Your task to perform on an android device: Open ESPN.com Image 0: 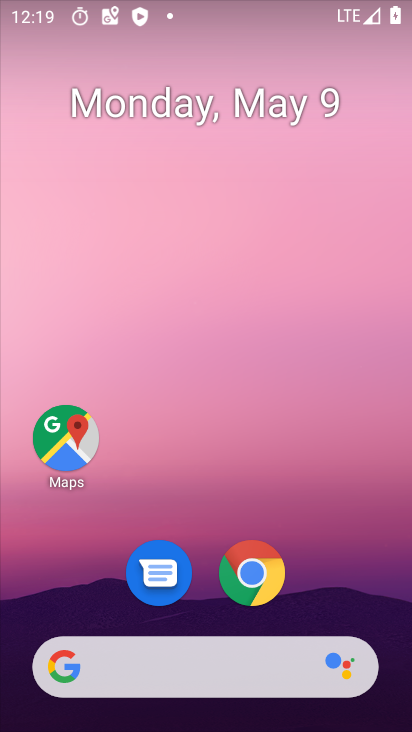
Step 0: drag from (327, 603) to (262, 15)
Your task to perform on an android device: Open ESPN.com Image 1: 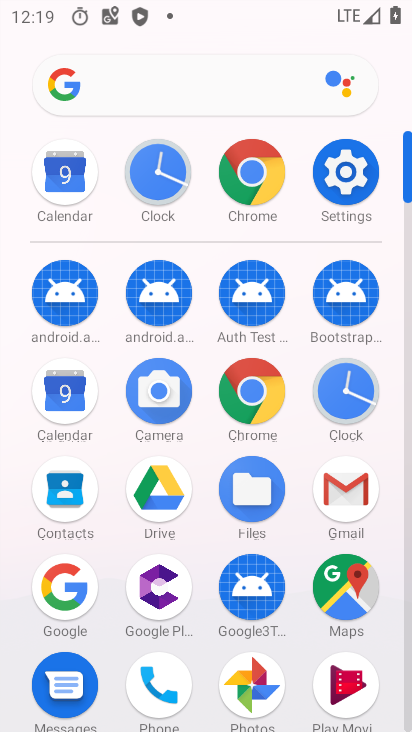
Step 1: drag from (10, 624) to (24, 242)
Your task to perform on an android device: Open ESPN.com Image 2: 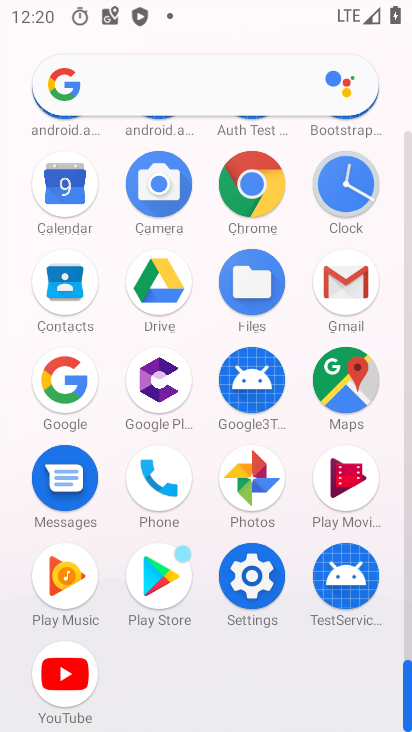
Step 2: click (247, 174)
Your task to perform on an android device: Open ESPN.com Image 3: 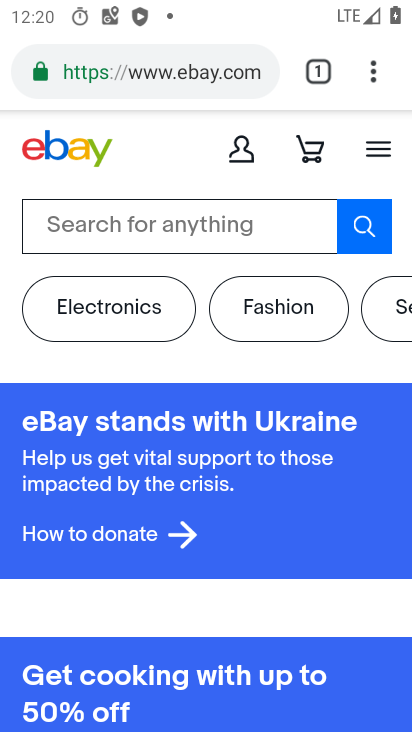
Step 3: click (186, 71)
Your task to perform on an android device: Open ESPN.com Image 4: 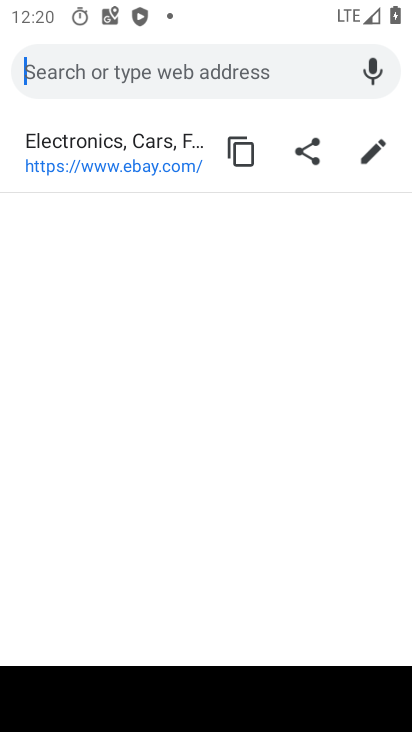
Step 4: click (147, 73)
Your task to perform on an android device: Open ESPN.com Image 5: 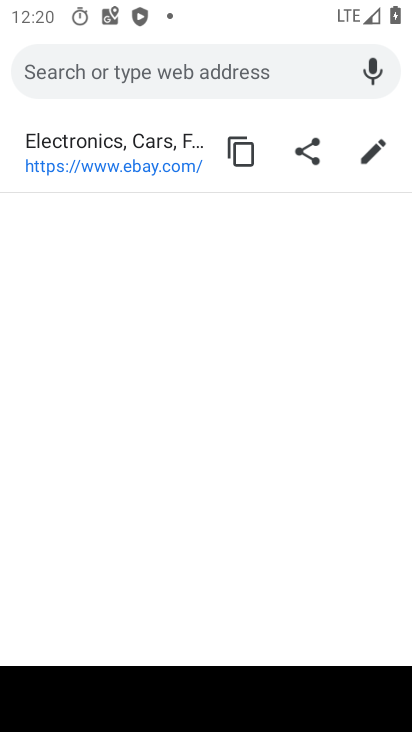
Step 5: type "ESPN.com"
Your task to perform on an android device: Open ESPN.com Image 6: 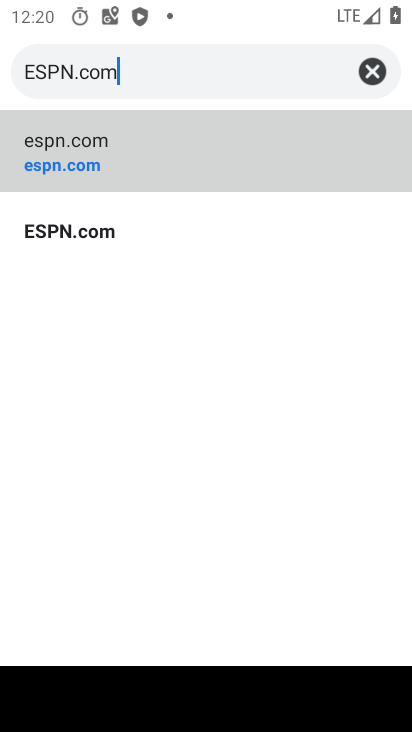
Step 6: type ""
Your task to perform on an android device: Open ESPN.com Image 7: 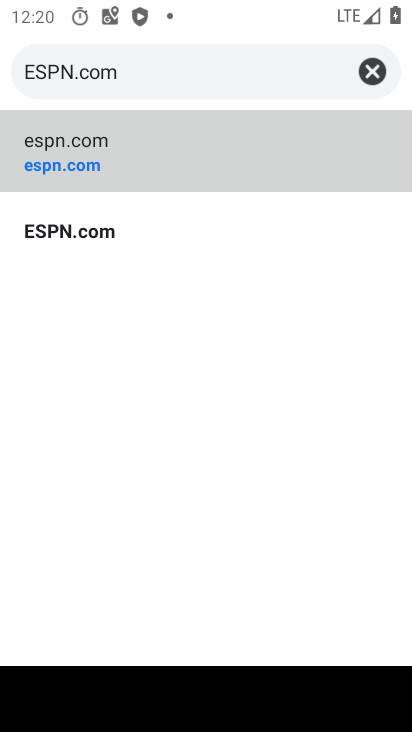
Step 7: click (125, 121)
Your task to perform on an android device: Open ESPN.com Image 8: 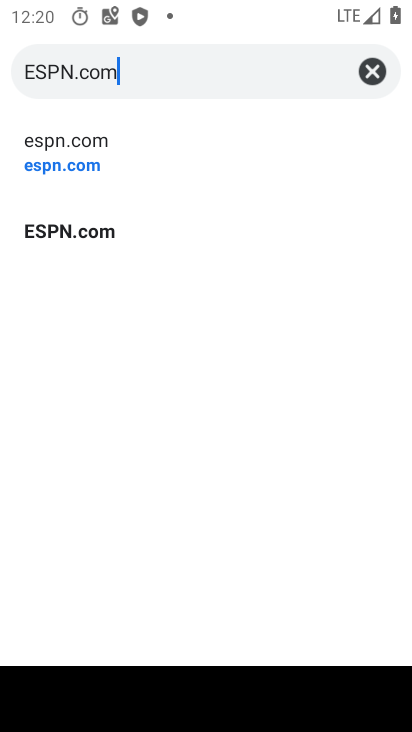
Step 8: click (119, 139)
Your task to perform on an android device: Open ESPN.com Image 9: 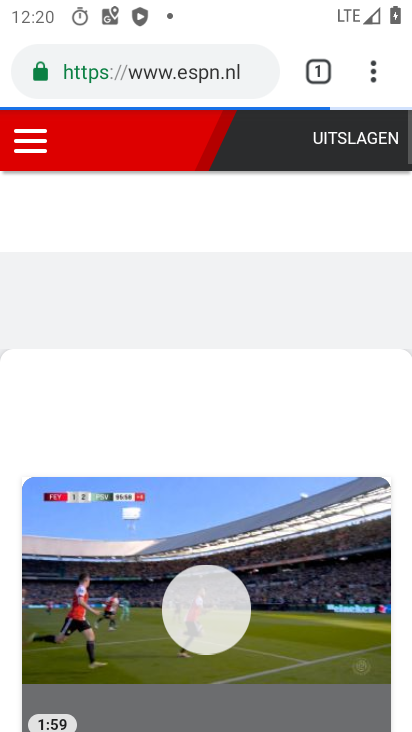
Step 9: task complete